Your task to perform on an android device: Do I have any events tomorrow? Image 0: 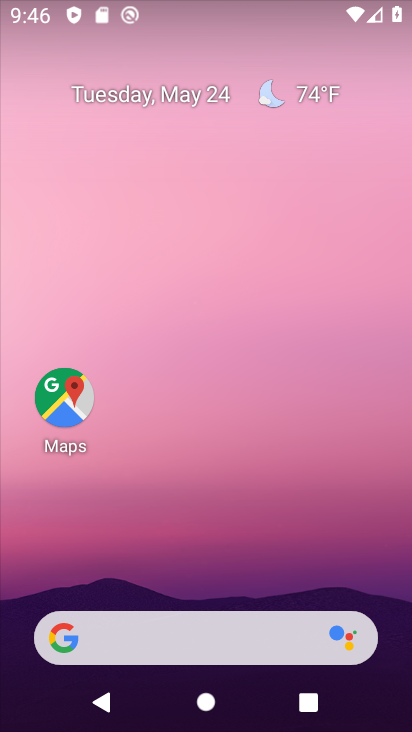
Step 0: drag from (187, 595) to (148, 43)
Your task to perform on an android device: Do I have any events tomorrow? Image 1: 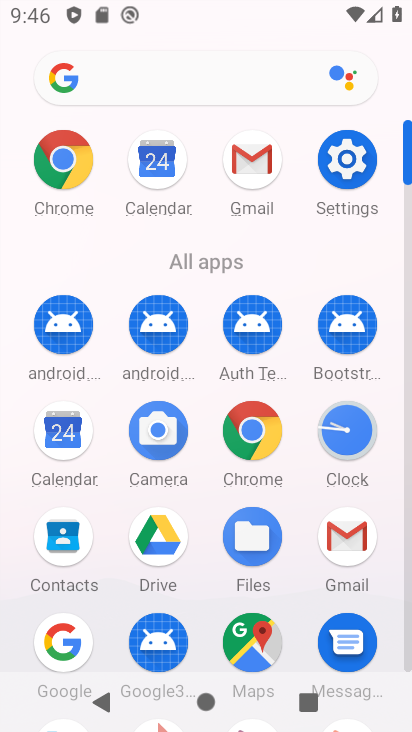
Step 1: click (62, 438)
Your task to perform on an android device: Do I have any events tomorrow? Image 2: 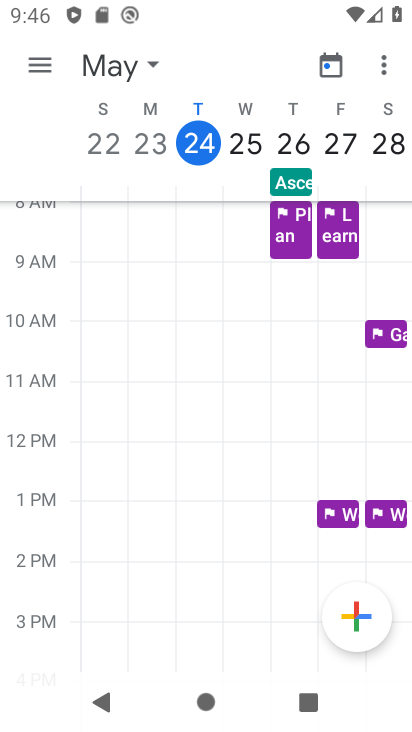
Step 2: click (241, 133)
Your task to perform on an android device: Do I have any events tomorrow? Image 3: 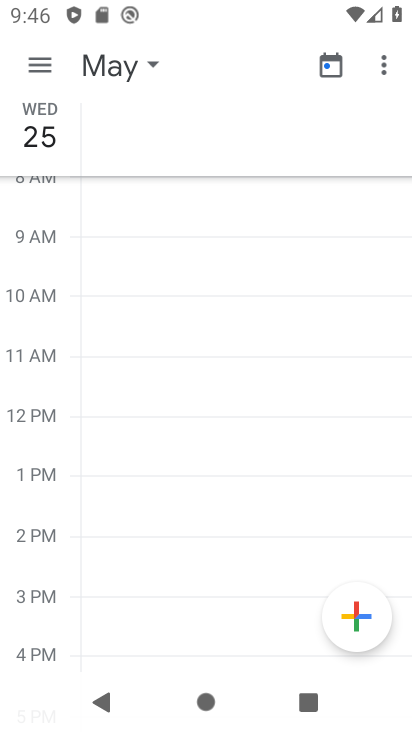
Step 3: task complete